Your task to perform on an android device: toggle notifications settings in the gmail app Image 0: 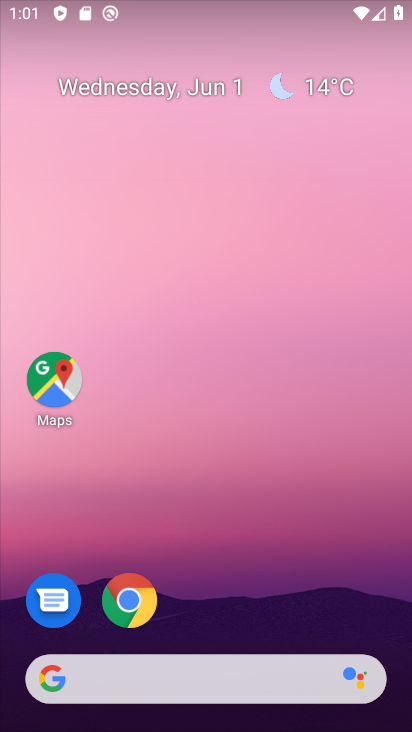
Step 0: click (249, 118)
Your task to perform on an android device: toggle notifications settings in the gmail app Image 1: 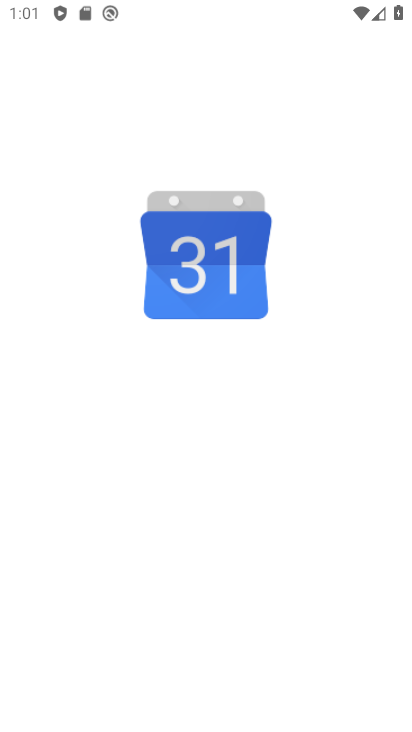
Step 1: drag from (192, 604) to (239, 233)
Your task to perform on an android device: toggle notifications settings in the gmail app Image 2: 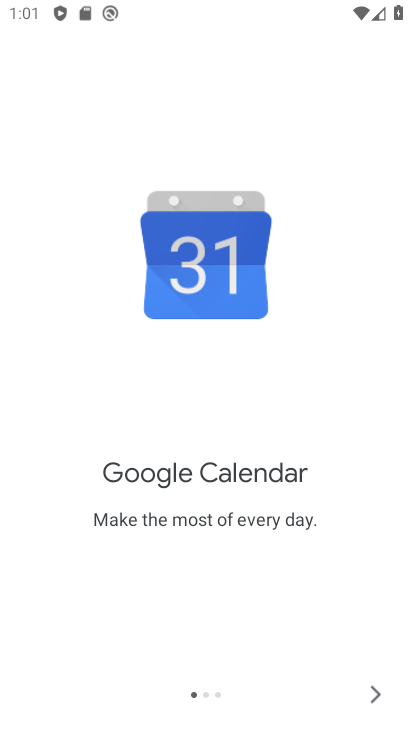
Step 2: press home button
Your task to perform on an android device: toggle notifications settings in the gmail app Image 3: 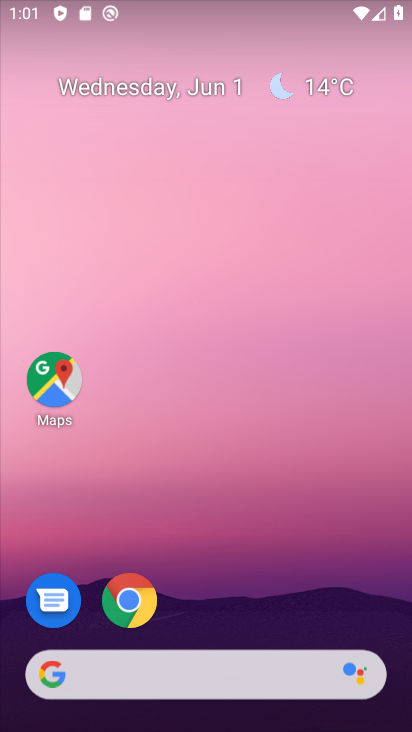
Step 3: drag from (192, 628) to (282, 101)
Your task to perform on an android device: toggle notifications settings in the gmail app Image 4: 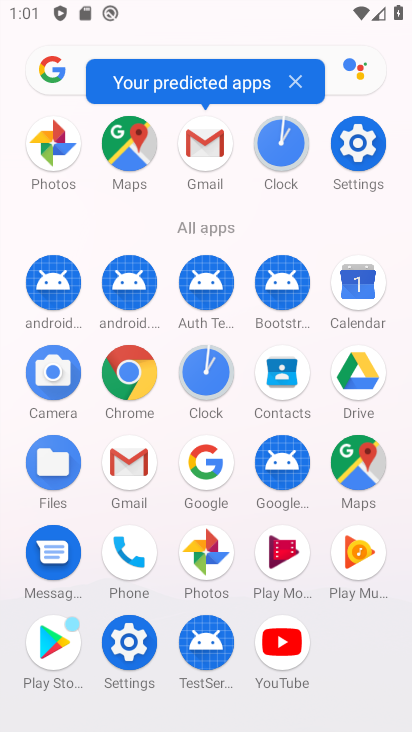
Step 4: click (126, 471)
Your task to perform on an android device: toggle notifications settings in the gmail app Image 5: 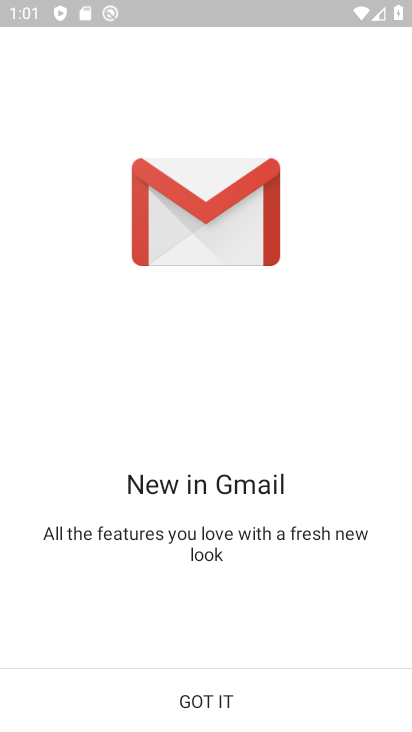
Step 5: click (229, 727)
Your task to perform on an android device: toggle notifications settings in the gmail app Image 6: 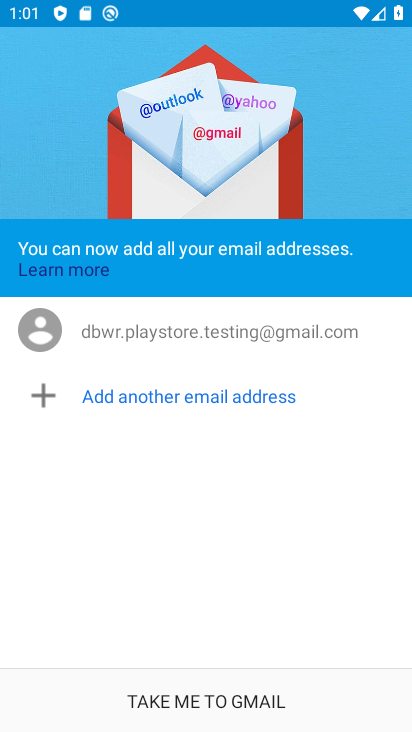
Step 6: click (226, 692)
Your task to perform on an android device: toggle notifications settings in the gmail app Image 7: 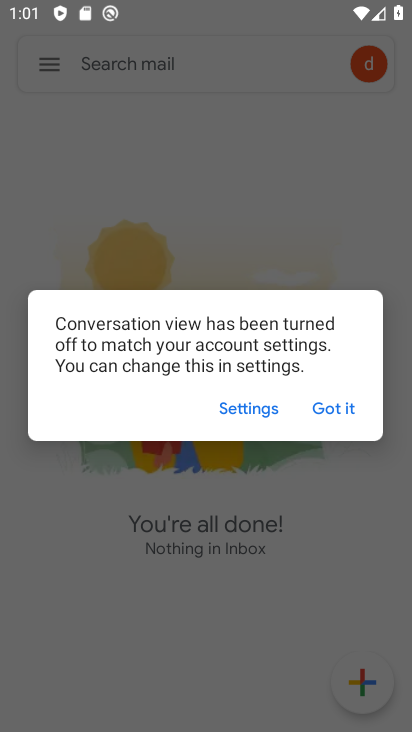
Step 7: click (354, 414)
Your task to perform on an android device: toggle notifications settings in the gmail app Image 8: 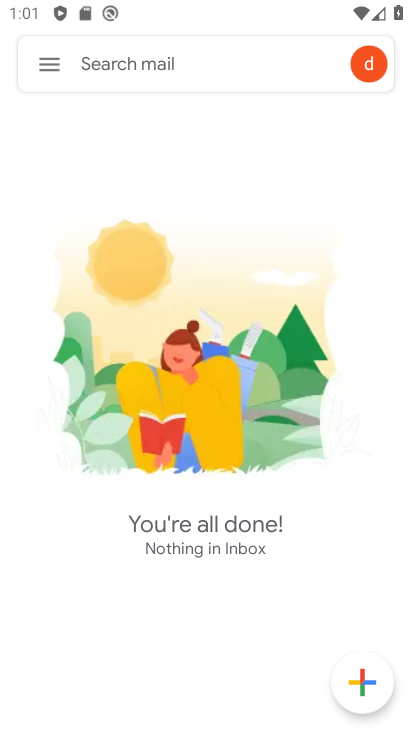
Step 8: click (42, 75)
Your task to perform on an android device: toggle notifications settings in the gmail app Image 9: 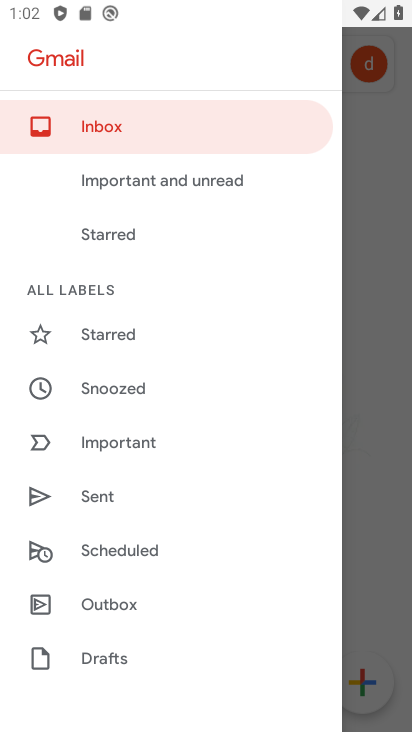
Step 9: drag from (132, 627) to (249, 179)
Your task to perform on an android device: toggle notifications settings in the gmail app Image 10: 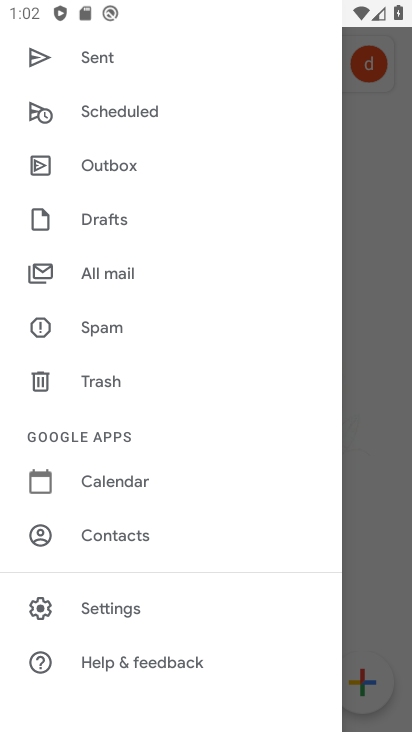
Step 10: click (144, 608)
Your task to perform on an android device: toggle notifications settings in the gmail app Image 11: 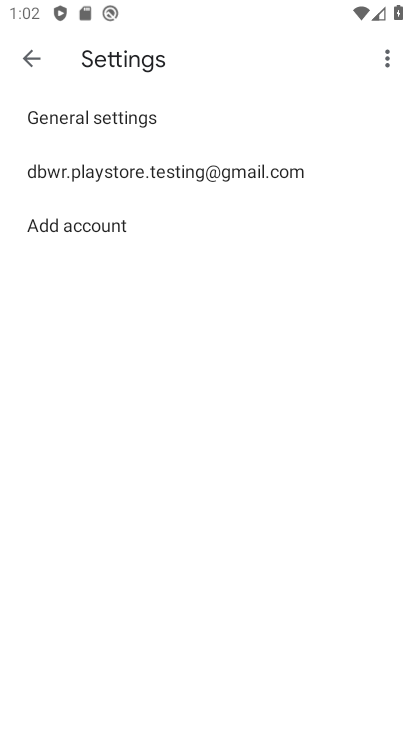
Step 11: click (292, 180)
Your task to perform on an android device: toggle notifications settings in the gmail app Image 12: 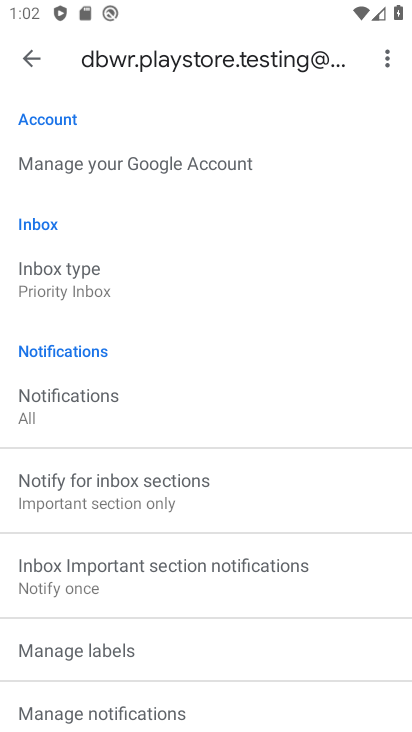
Step 12: drag from (211, 621) to (266, 324)
Your task to perform on an android device: toggle notifications settings in the gmail app Image 13: 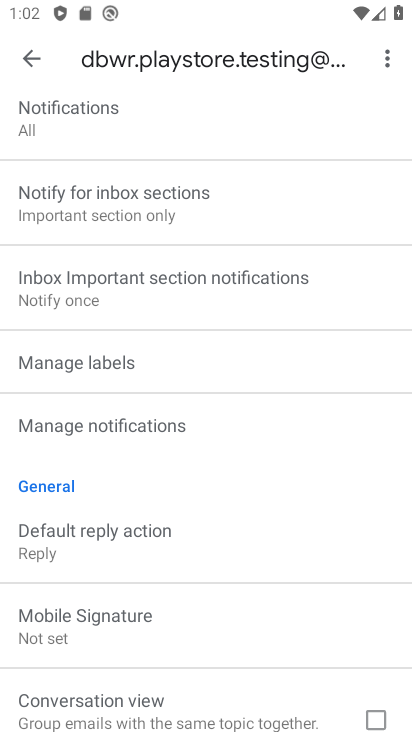
Step 13: click (200, 428)
Your task to perform on an android device: toggle notifications settings in the gmail app Image 14: 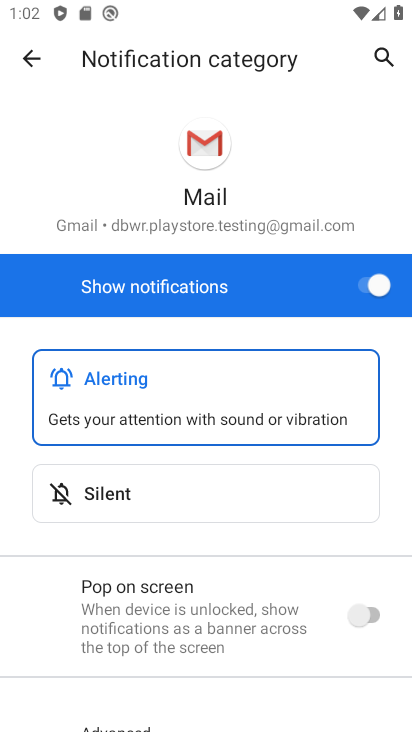
Step 14: click (362, 280)
Your task to perform on an android device: toggle notifications settings in the gmail app Image 15: 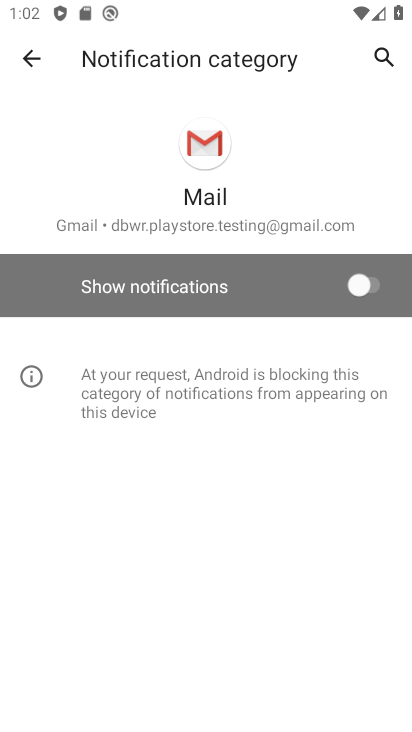
Step 15: task complete